Your task to perform on an android device: Is it going to rain this weekend? Image 0: 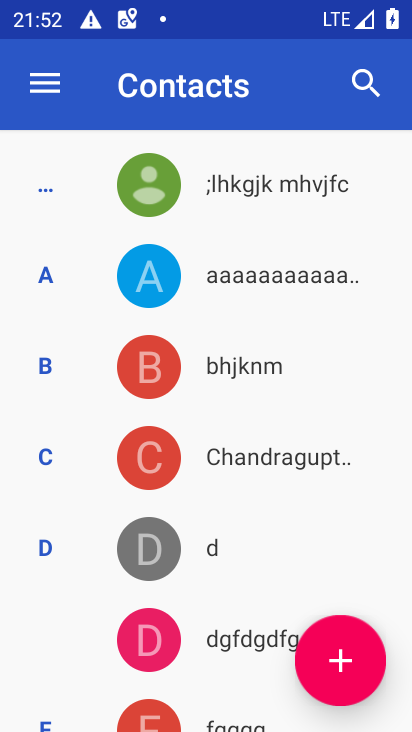
Step 0: press home button
Your task to perform on an android device: Is it going to rain this weekend? Image 1: 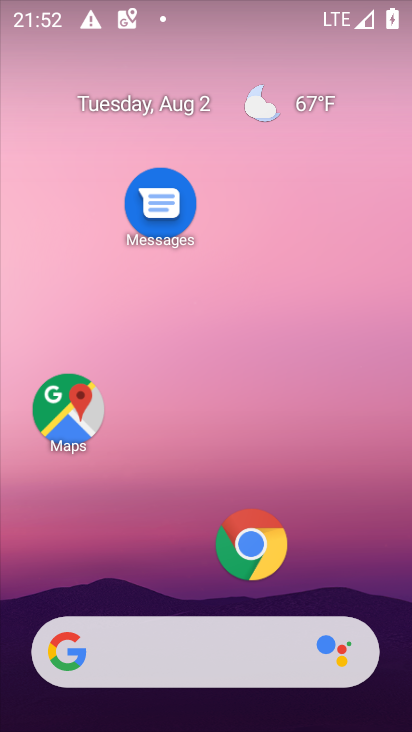
Step 1: drag from (197, 570) to (189, 59)
Your task to perform on an android device: Is it going to rain this weekend? Image 2: 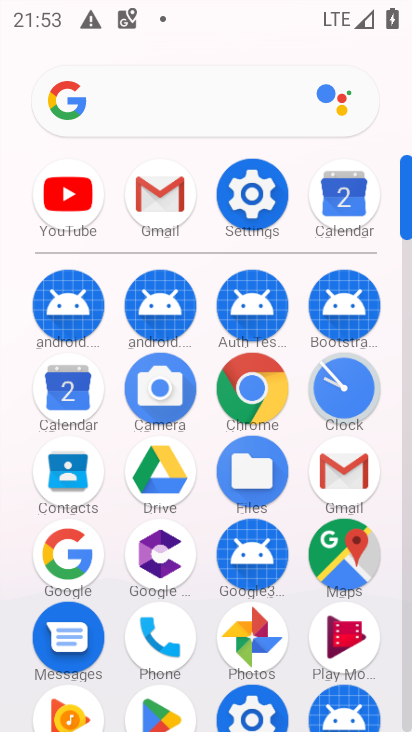
Step 2: click (67, 565)
Your task to perform on an android device: Is it going to rain this weekend? Image 3: 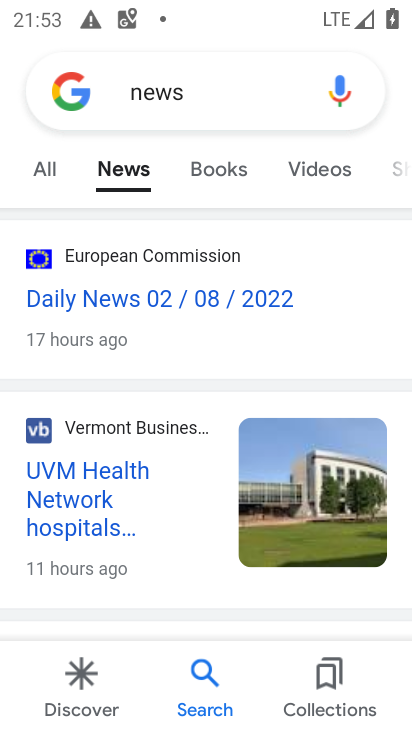
Step 3: click (54, 175)
Your task to perform on an android device: Is it going to rain this weekend? Image 4: 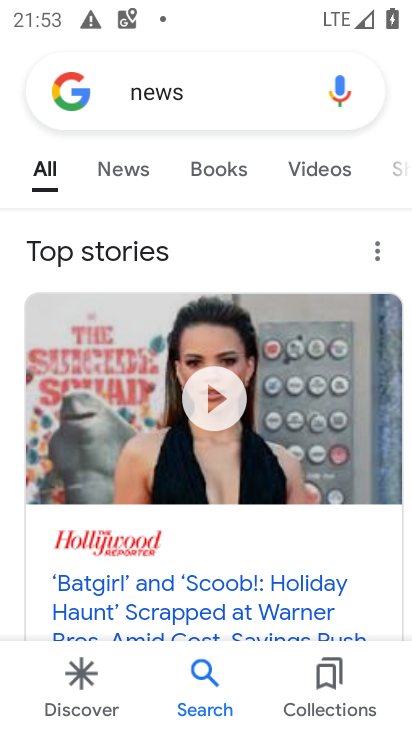
Step 4: click (284, 92)
Your task to perform on an android device: Is it going to rain this weekend? Image 5: 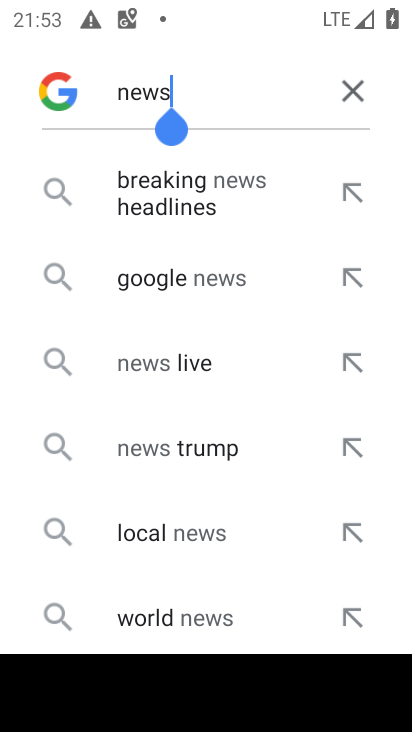
Step 5: click (353, 90)
Your task to perform on an android device: Is it going to rain this weekend? Image 6: 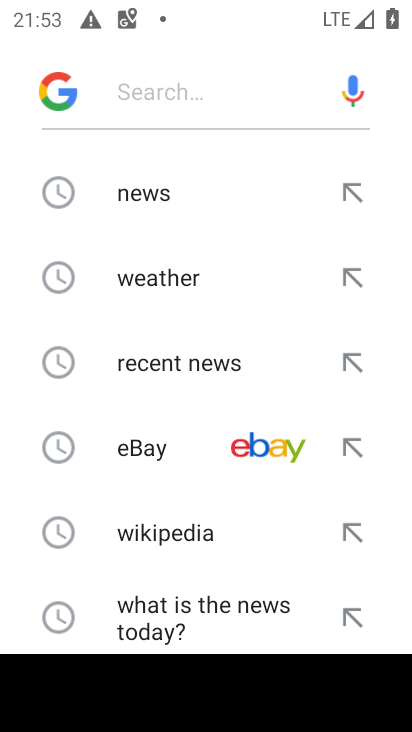
Step 6: click (170, 274)
Your task to perform on an android device: Is it going to rain this weekend? Image 7: 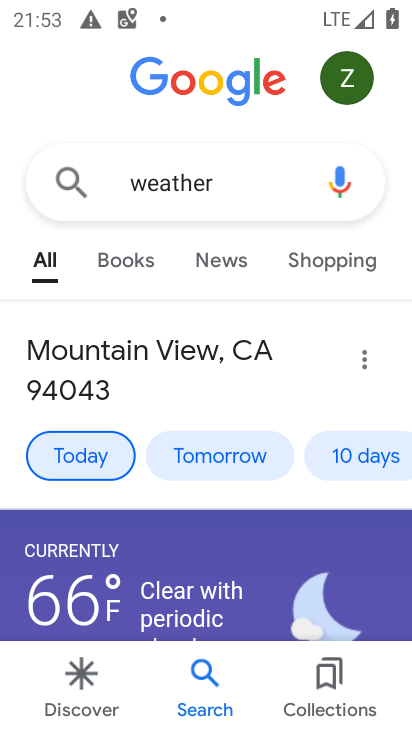
Step 7: click (337, 472)
Your task to perform on an android device: Is it going to rain this weekend? Image 8: 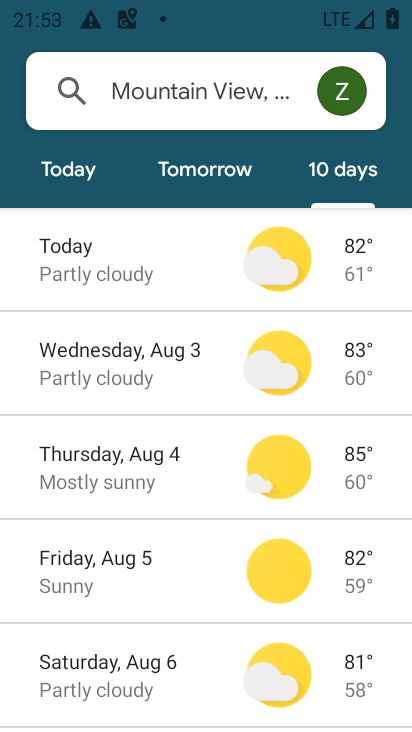
Step 8: task complete